Your task to perform on an android device: What's the weather going to be this weekend? Image 0: 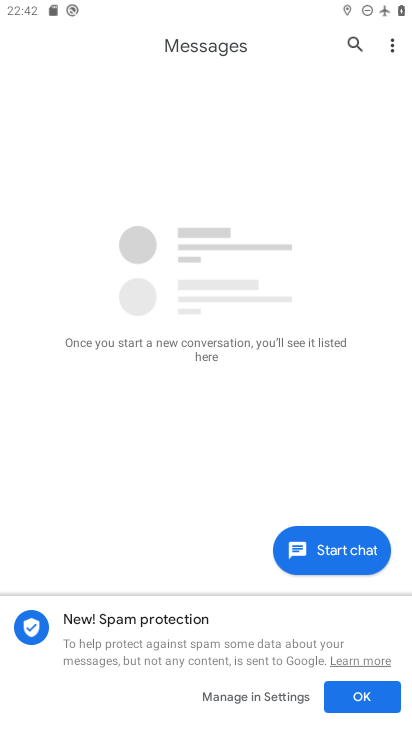
Step 0: press home button
Your task to perform on an android device: What's the weather going to be this weekend? Image 1: 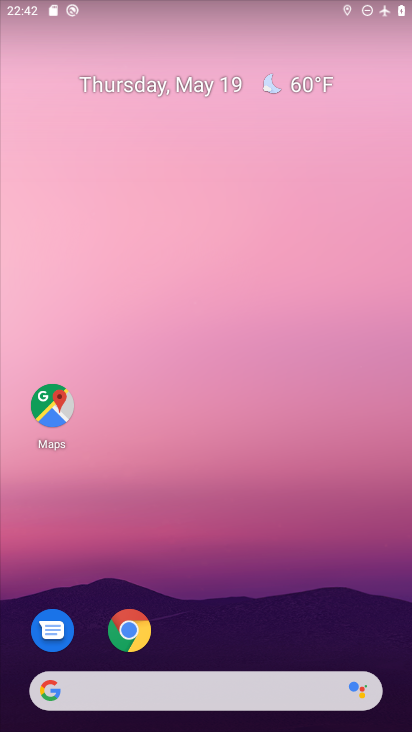
Step 1: click (194, 677)
Your task to perform on an android device: What's the weather going to be this weekend? Image 2: 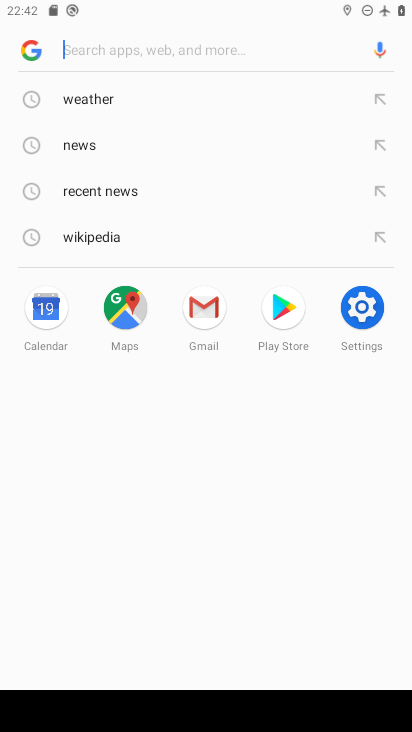
Step 2: click (96, 98)
Your task to perform on an android device: What's the weather going to be this weekend? Image 3: 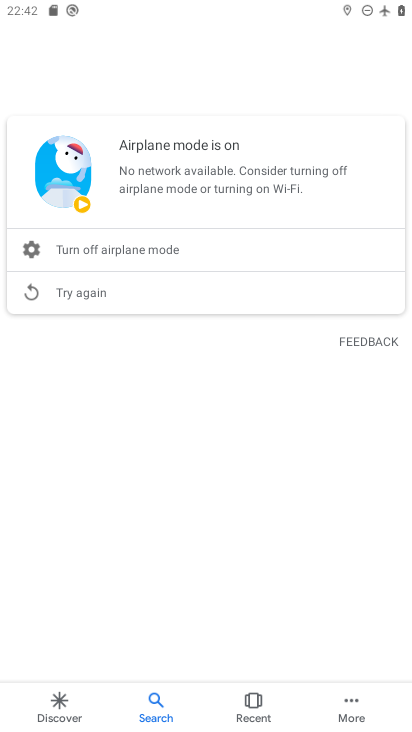
Step 3: click (37, 289)
Your task to perform on an android device: What's the weather going to be this weekend? Image 4: 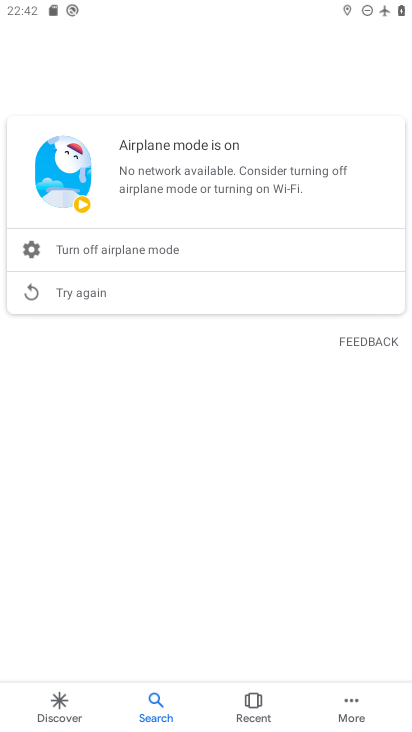
Step 4: task complete